Your task to perform on an android device: toggle notification dots Image 0: 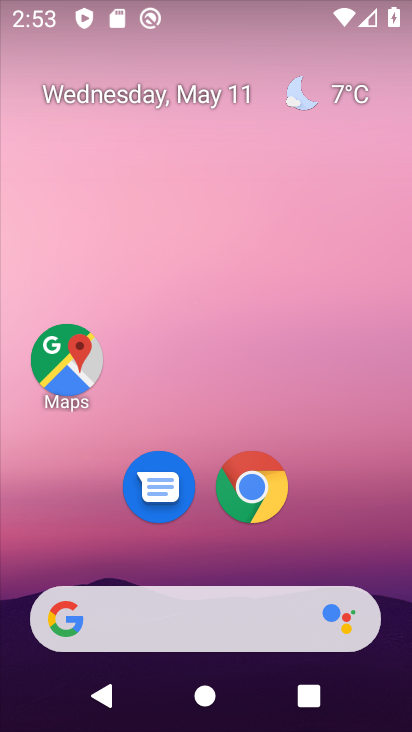
Step 0: drag from (231, 580) to (261, 20)
Your task to perform on an android device: toggle notification dots Image 1: 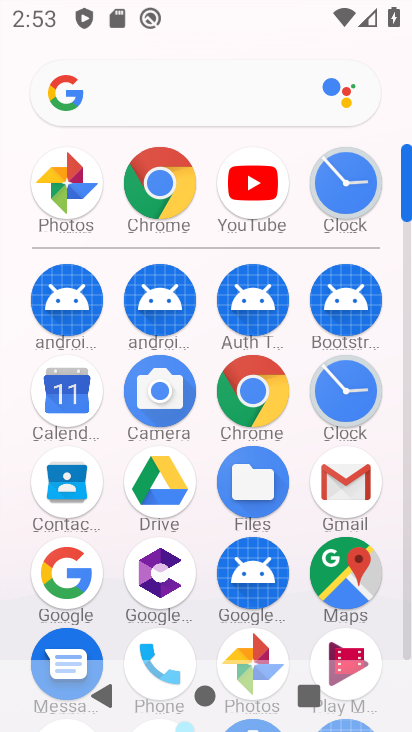
Step 1: drag from (291, 608) to (289, 324)
Your task to perform on an android device: toggle notification dots Image 2: 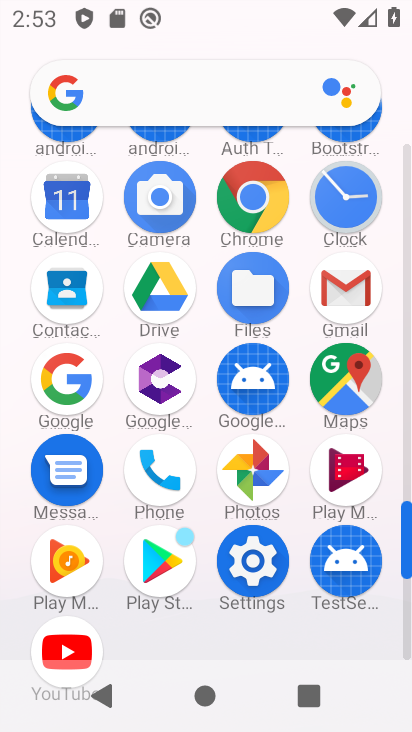
Step 2: click (256, 581)
Your task to perform on an android device: toggle notification dots Image 3: 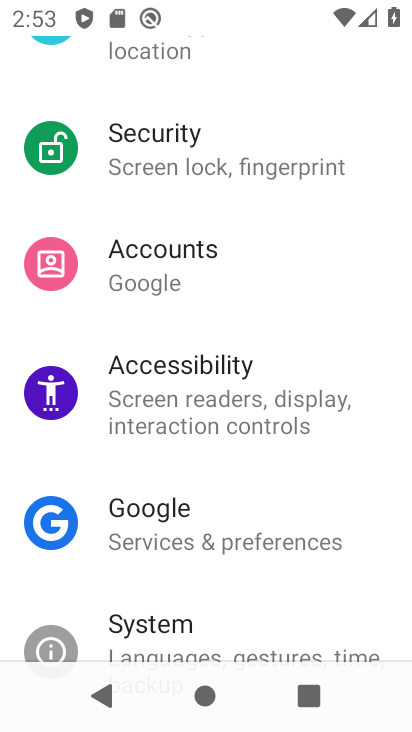
Step 3: drag from (244, 233) to (236, 640)
Your task to perform on an android device: toggle notification dots Image 4: 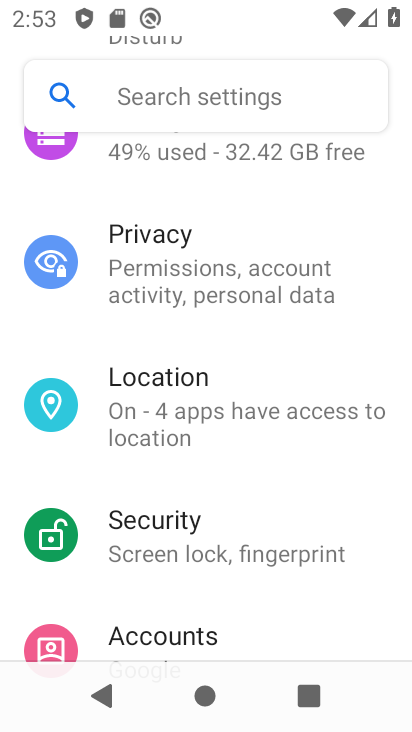
Step 4: drag from (204, 263) to (199, 711)
Your task to perform on an android device: toggle notification dots Image 5: 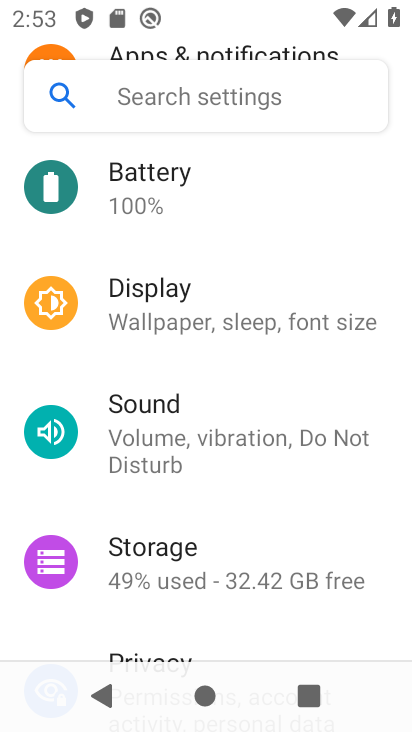
Step 5: drag from (205, 233) to (318, 722)
Your task to perform on an android device: toggle notification dots Image 6: 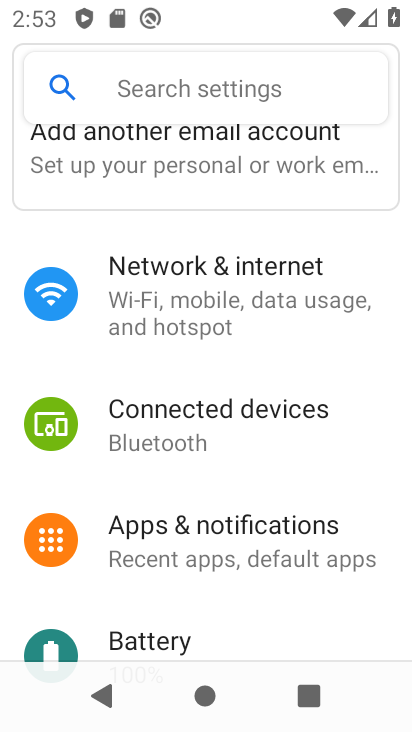
Step 6: click (252, 540)
Your task to perform on an android device: toggle notification dots Image 7: 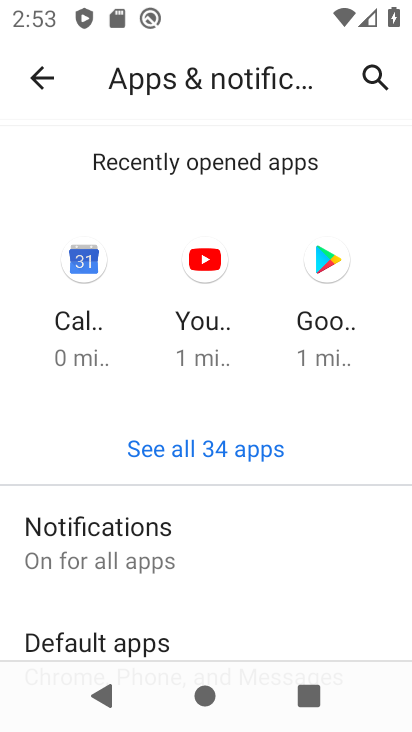
Step 7: drag from (219, 625) to (198, 241)
Your task to perform on an android device: toggle notification dots Image 8: 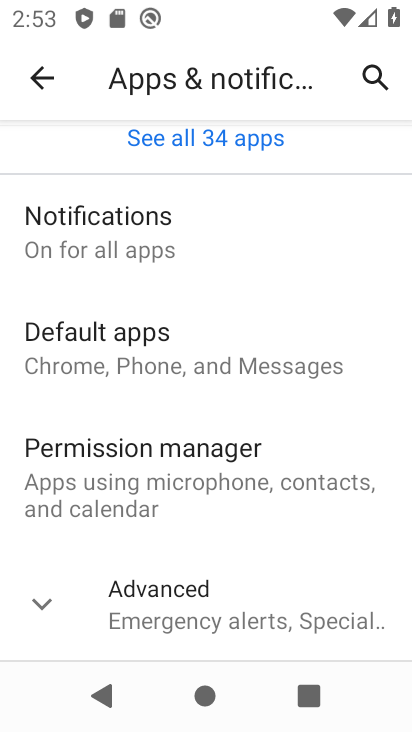
Step 8: click (182, 225)
Your task to perform on an android device: toggle notification dots Image 9: 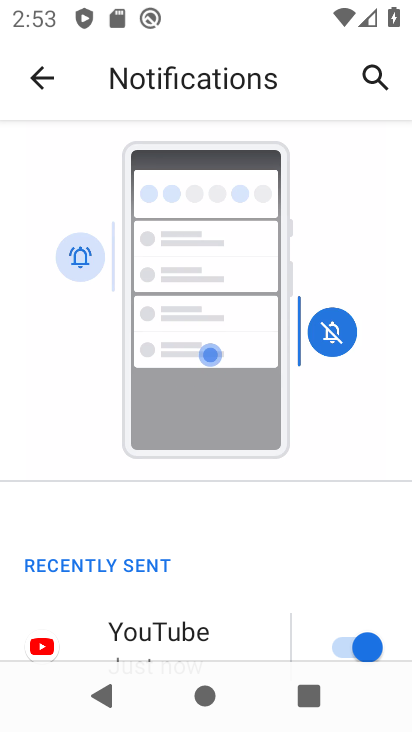
Step 9: drag from (260, 616) to (279, 142)
Your task to perform on an android device: toggle notification dots Image 10: 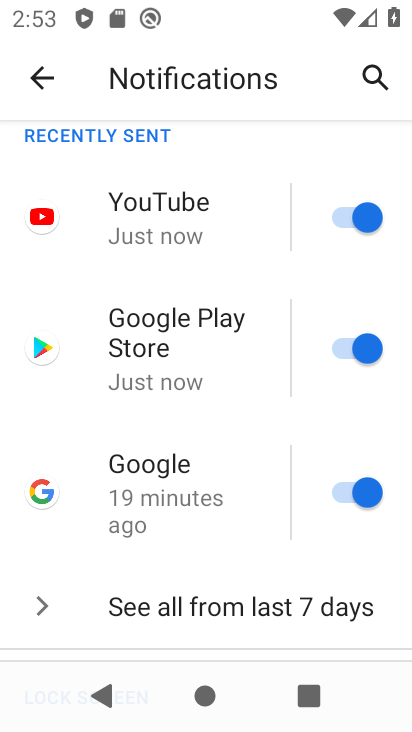
Step 10: drag from (202, 619) to (246, 218)
Your task to perform on an android device: toggle notification dots Image 11: 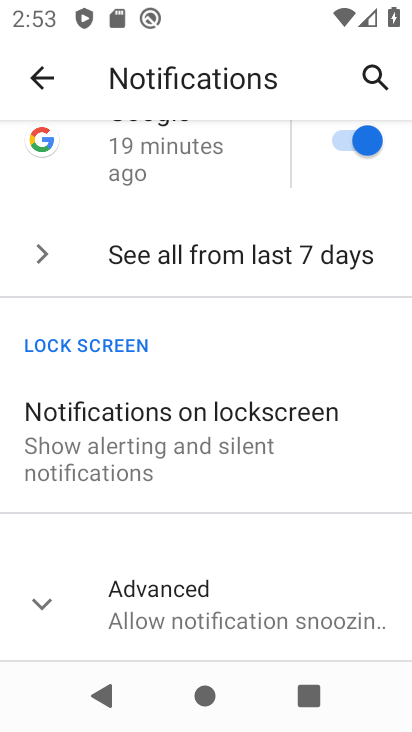
Step 11: click (239, 610)
Your task to perform on an android device: toggle notification dots Image 12: 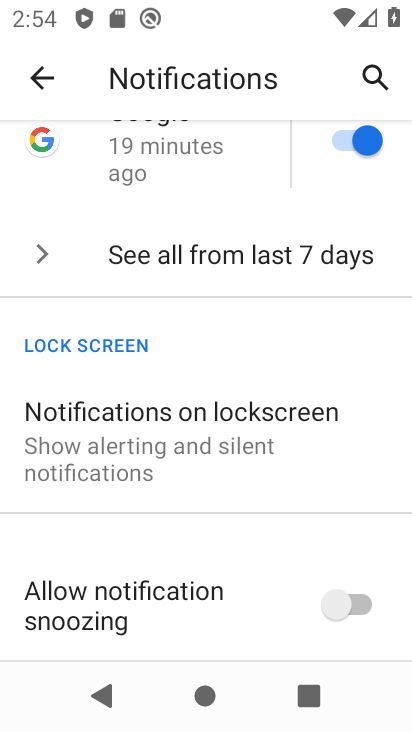
Step 12: drag from (239, 611) to (281, 140)
Your task to perform on an android device: toggle notification dots Image 13: 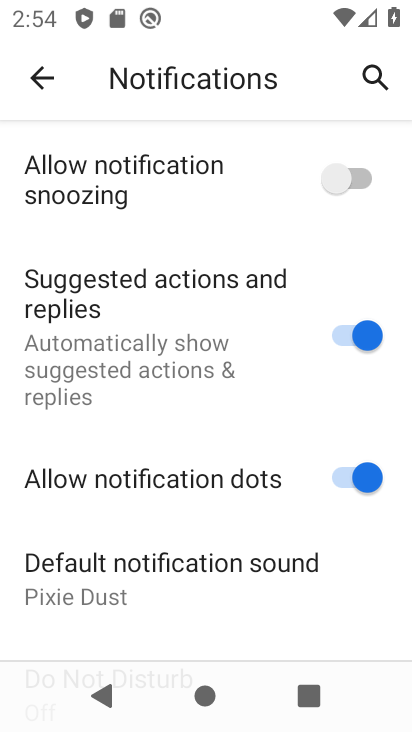
Step 13: click (351, 476)
Your task to perform on an android device: toggle notification dots Image 14: 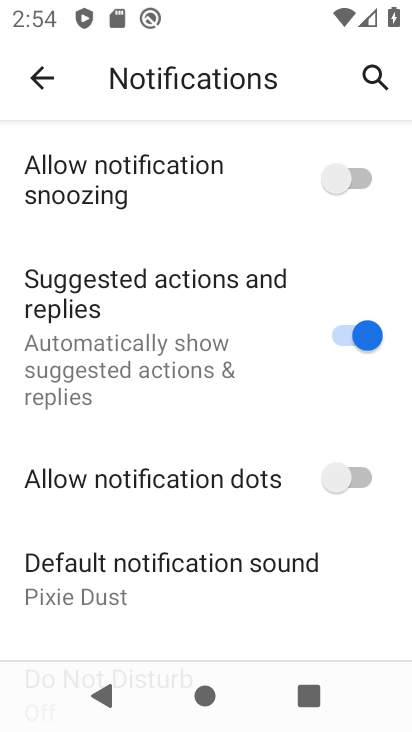
Step 14: task complete